Your task to perform on an android device: turn off translation in the chrome app Image 0: 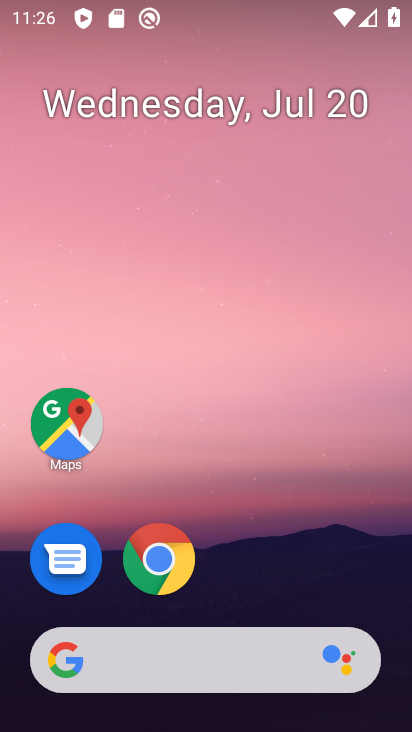
Step 0: click (188, 560)
Your task to perform on an android device: turn off translation in the chrome app Image 1: 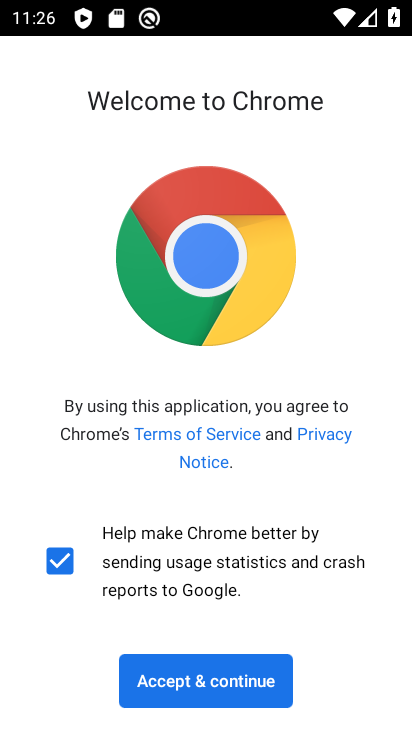
Step 1: click (221, 701)
Your task to perform on an android device: turn off translation in the chrome app Image 2: 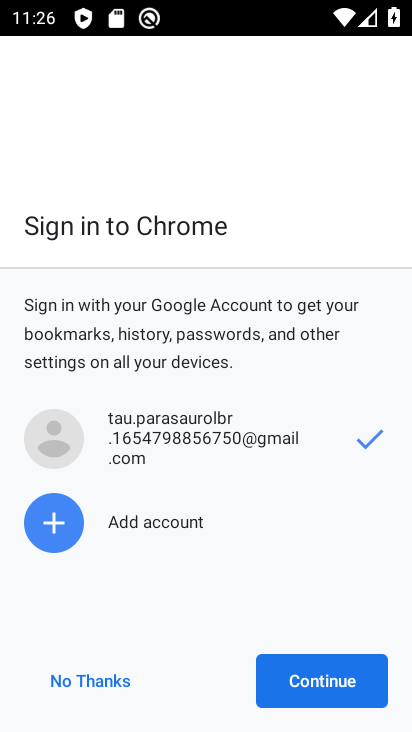
Step 2: click (341, 656)
Your task to perform on an android device: turn off translation in the chrome app Image 3: 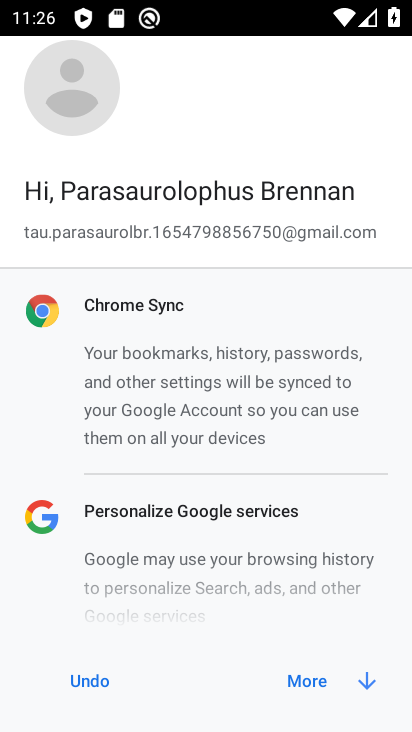
Step 3: click (329, 681)
Your task to perform on an android device: turn off translation in the chrome app Image 4: 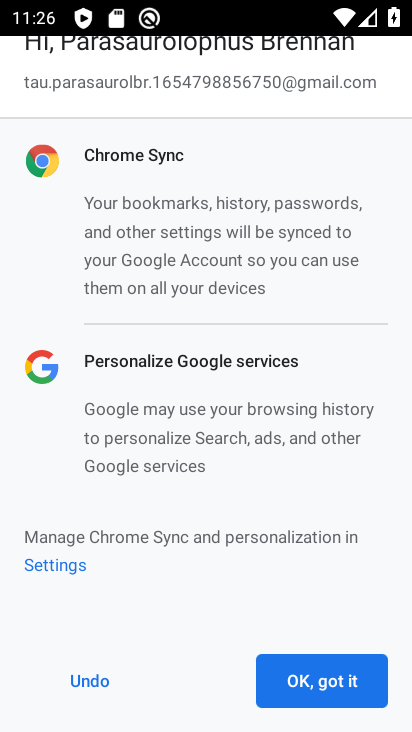
Step 4: click (329, 681)
Your task to perform on an android device: turn off translation in the chrome app Image 5: 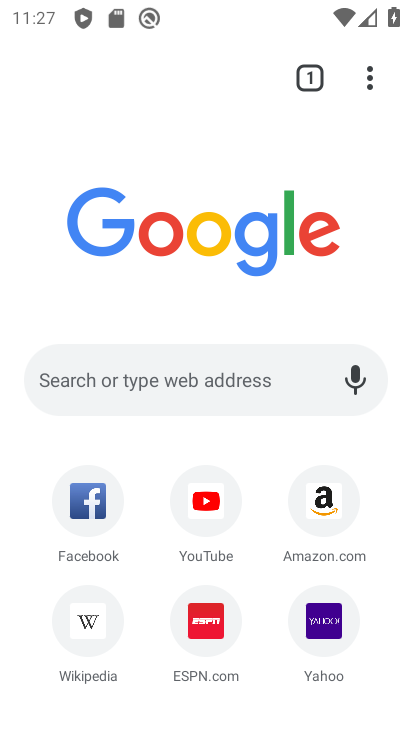
Step 5: click (370, 94)
Your task to perform on an android device: turn off translation in the chrome app Image 6: 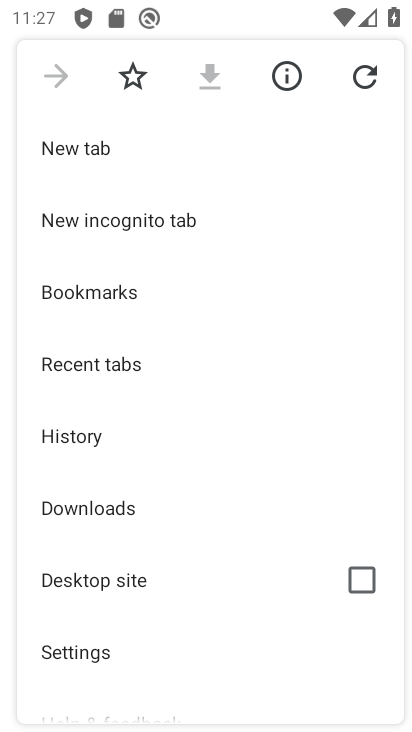
Step 6: click (64, 651)
Your task to perform on an android device: turn off translation in the chrome app Image 7: 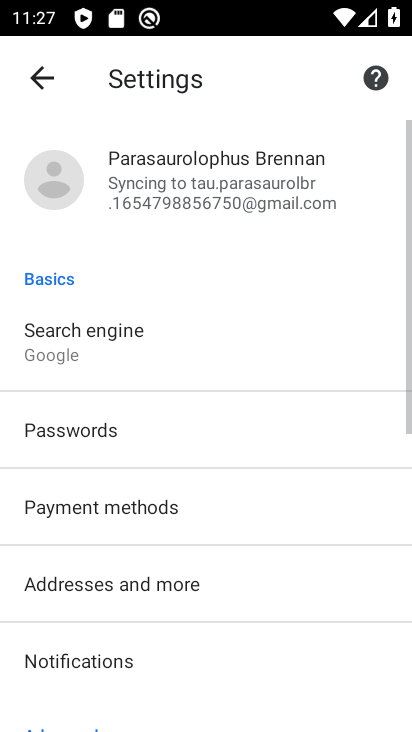
Step 7: drag from (64, 651) to (71, 197)
Your task to perform on an android device: turn off translation in the chrome app Image 8: 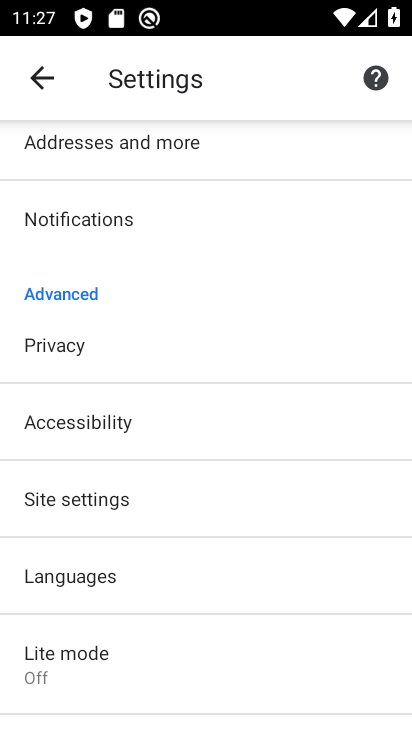
Step 8: click (111, 597)
Your task to perform on an android device: turn off translation in the chrome app Image 9: 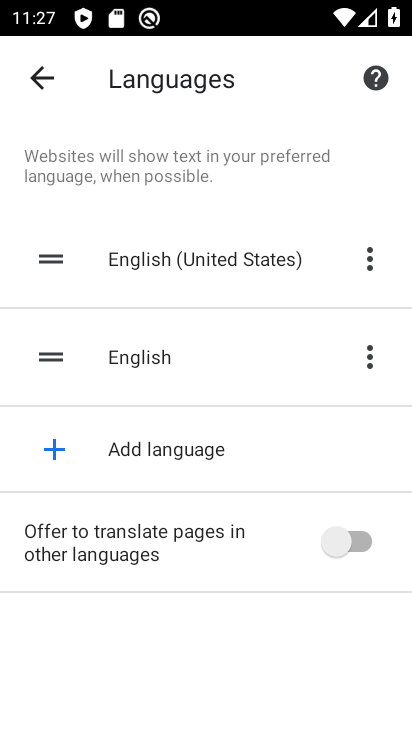
Step 9: task complete